Your task to perform on an android device: turn on sleep mode Image 0: 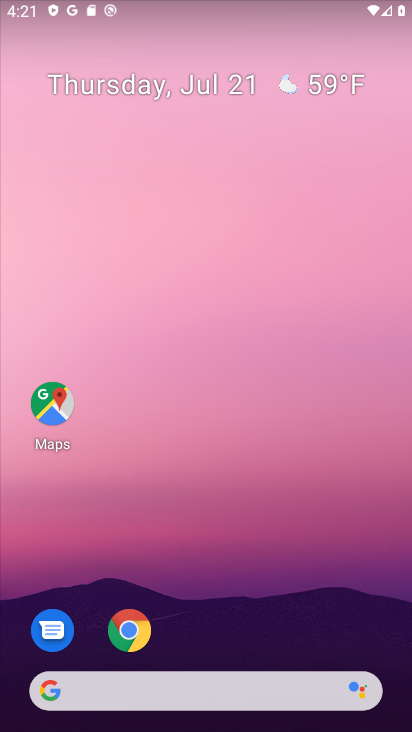
Step 0: drag from (202, 583) to (192, 189)
Your task to perform on an android device: turn on sleep mode Image 1: 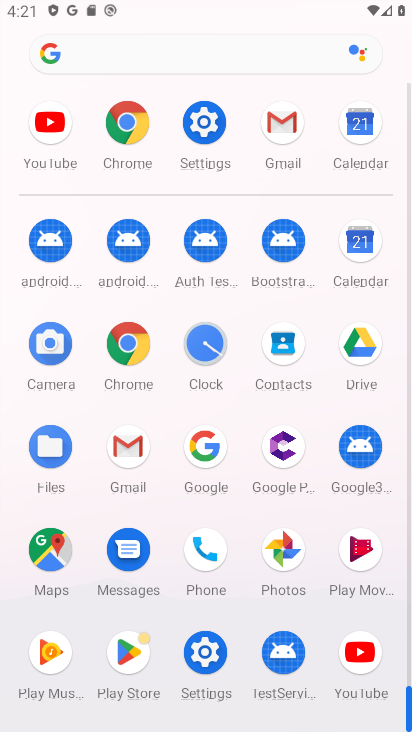
Step 1: click (199, 131)
Your task to perform on an android device: turn on sleep mode Image 2: 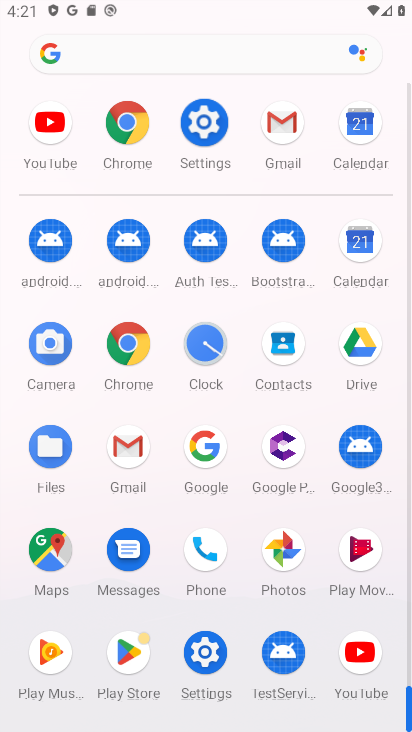
Step 2: click (201, 130)
Your task to perform on an android device: turn on sleep mode Image 3: 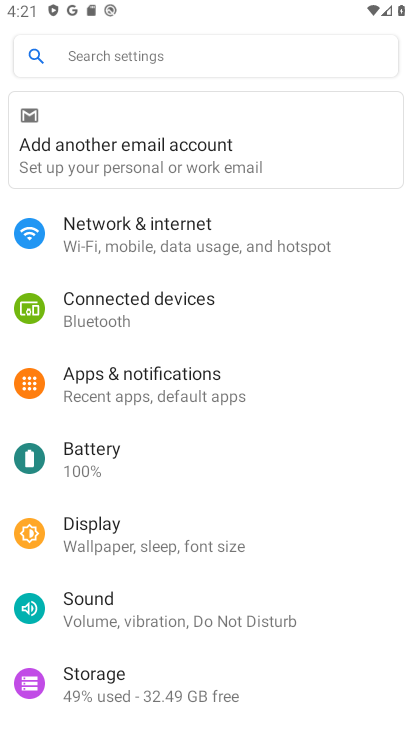
Step 3: drag from (144, 546) to (153, 261)
Your task to perform on an android device: turn on sleep mode Image 4: 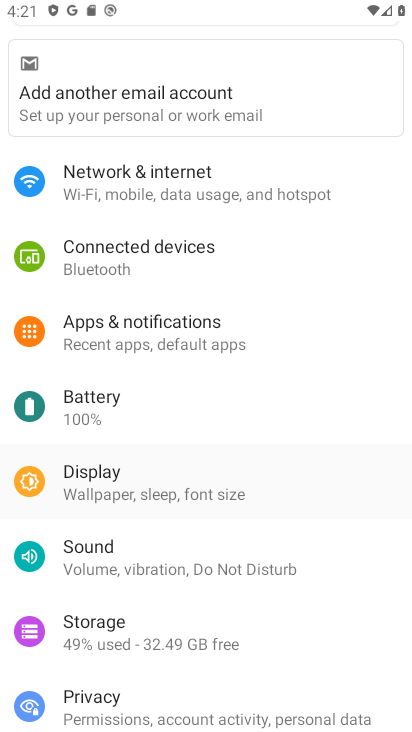
Step 4: drag from (68, 532) to (106, 353)
Your task to perform on an android device: turn on sleep mode Image 5: 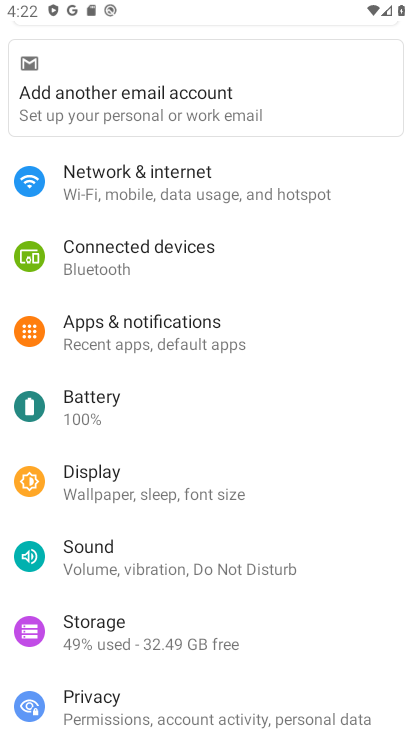
Step 5: click (106, 489)
Your task to perform on an android device: turn on sleep mode Image 6: 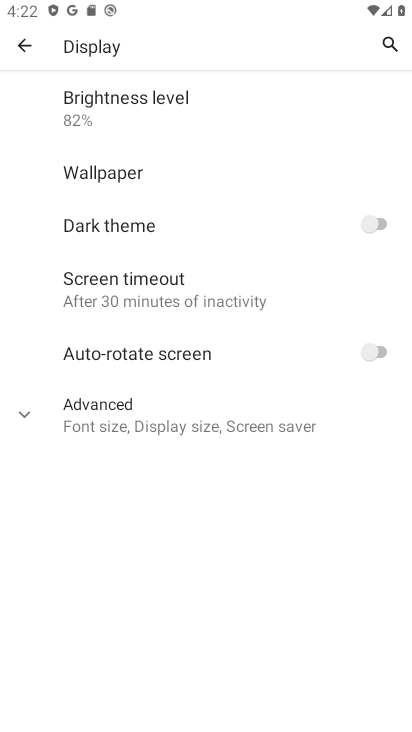
Step 6: click (123, 294)
Your task to perform on an android device: turn on sleep mode Image 7: 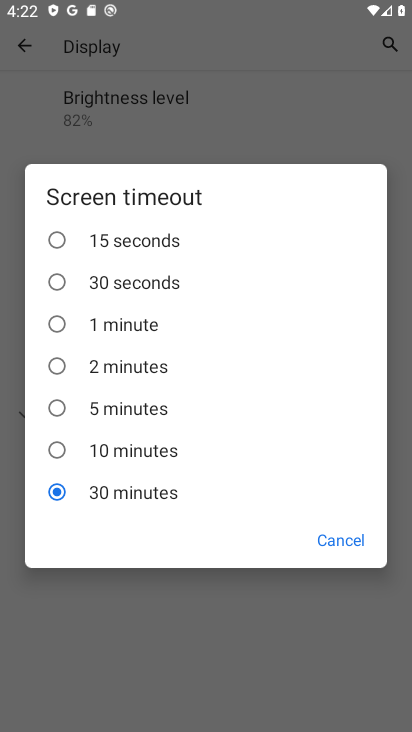
Step 7: click (65, 321)
Your task to perform on an android device: turn on sleep mode Image 8: 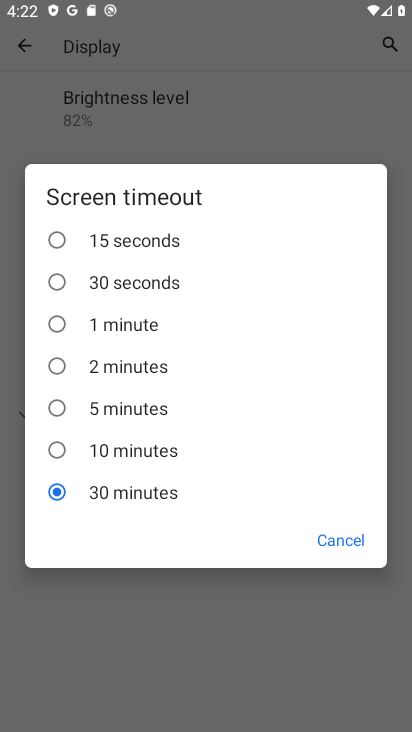
Step 8: click (62, 321)
Your task to perform on an android device: turn on sleep mode Image 9: 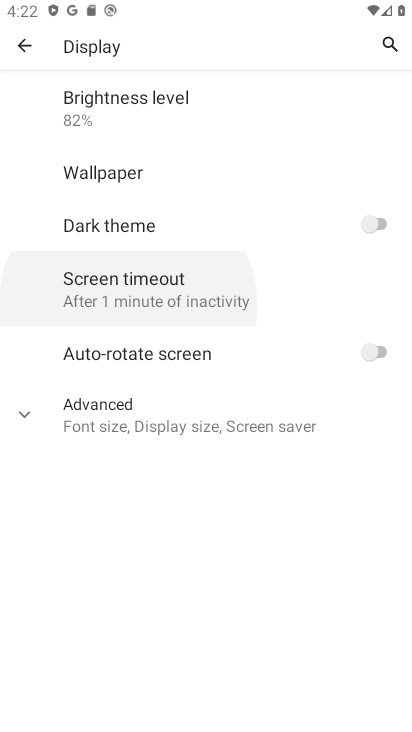
Step 9: click (62, 321)
Your task to perform on an android device: turn on sleep mode Image 10: 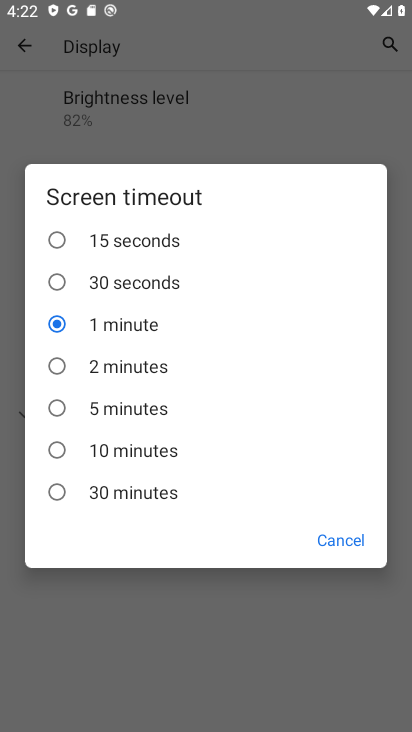
Step 10: click (335, 545)
Your task to perform on an android device: turn on sleep mode Image 11: 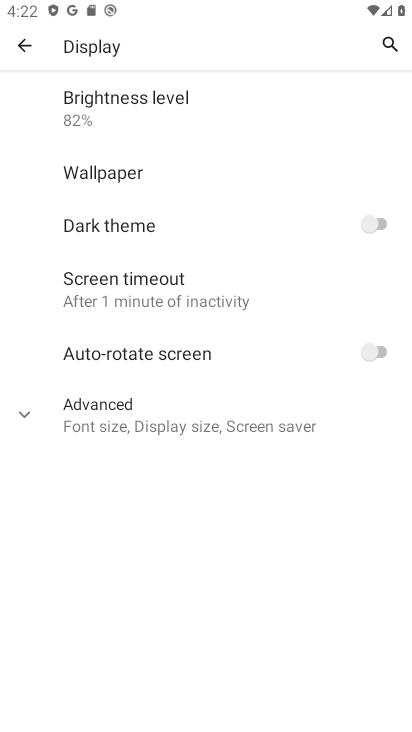
Step 11: task complete